Your task to perform on an android device: Open calendar and show me the first week of next month Image 0: 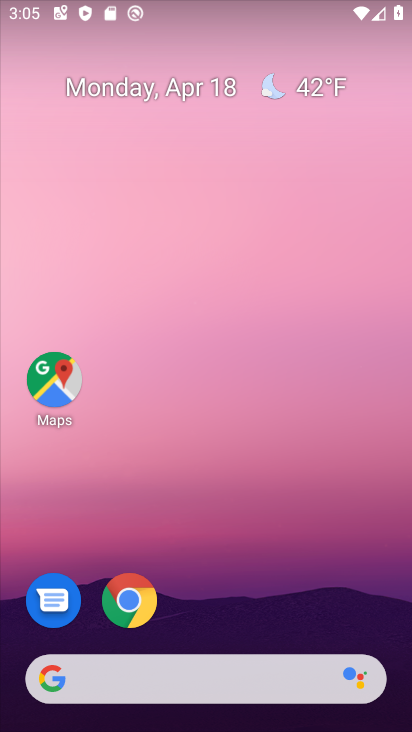
Step 0: drag from (166, 671) to (321, 55)
Your task to perform on an android device: Open calendar and show me the first week of next month Image 1: 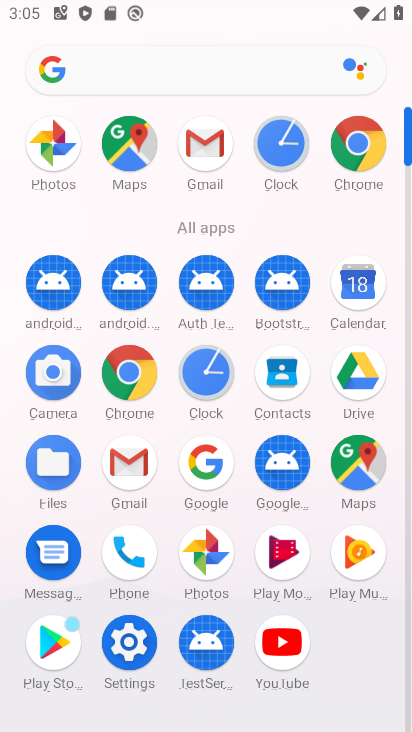
Step 1: click (362, 279)
Your task to perform on an android device: Open calendar and show me the first week of next month Image 2: 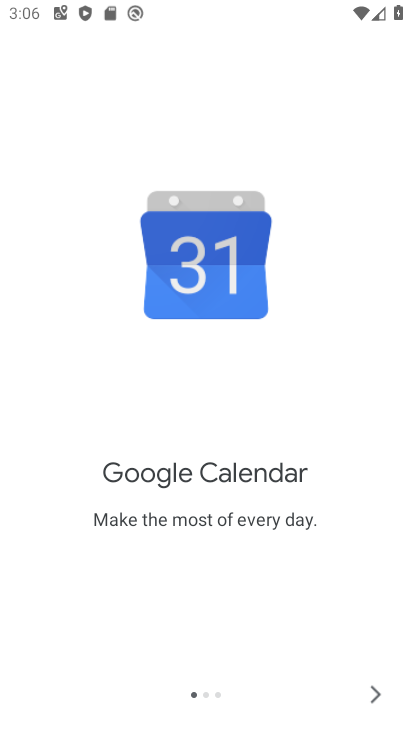
Step 2: click (372, 693)
Your task to perform on an android device: Open calendar and show me the first week of next month Image 3: 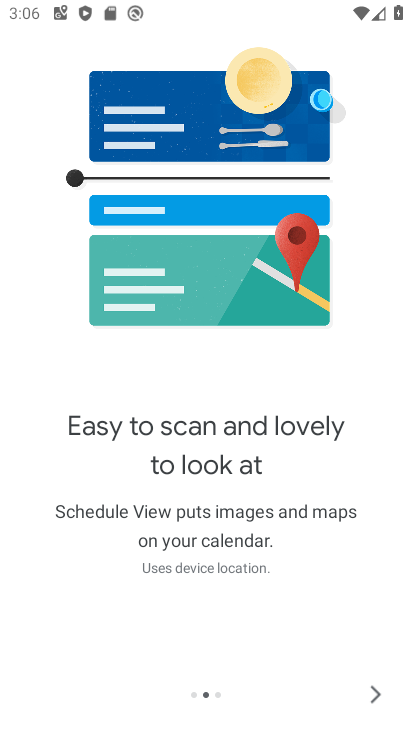
Step 3: click (381, 688)
Your task to perform on an android device: Open calendar and show me the first week of next month Image 4: 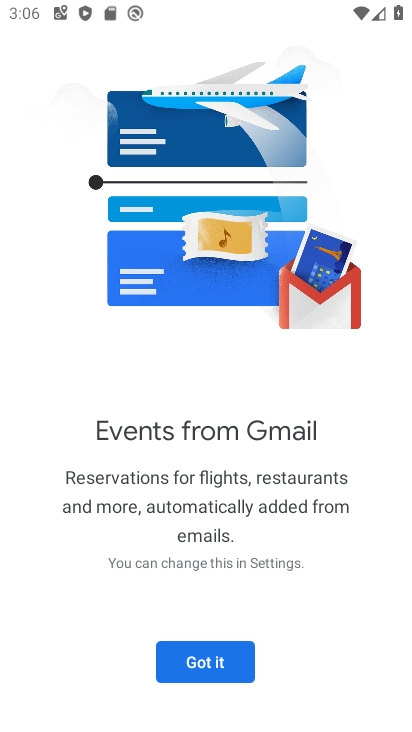
Step 4: click (233, 663)
Your task to perform on an android device: Open calendar and show me the first week of next month Image 5: 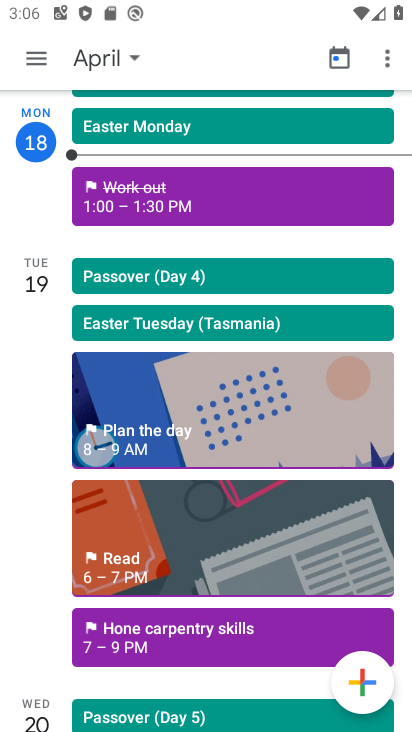
Step 5: click (93, 58)
Your task to perform on an android device: Open calendar and show me the first week of next month Image 6: 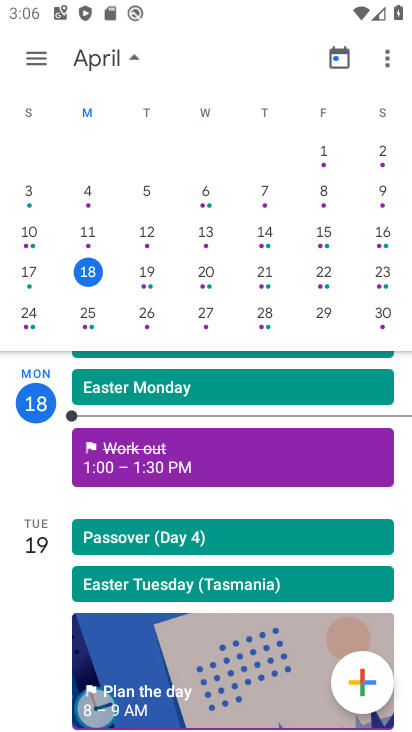
Step 6: drag from (244, 250) to (3, 198)
Your task to perform on an android device: Open calendar and show me the first week of next month Image 7: 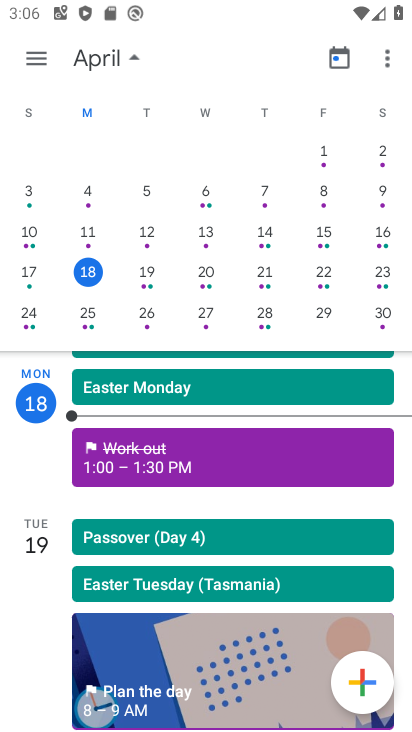
Step 7: click (15, 219)
Your task to perform on an android device: Open calendar and show me the first week of next month Image 8: 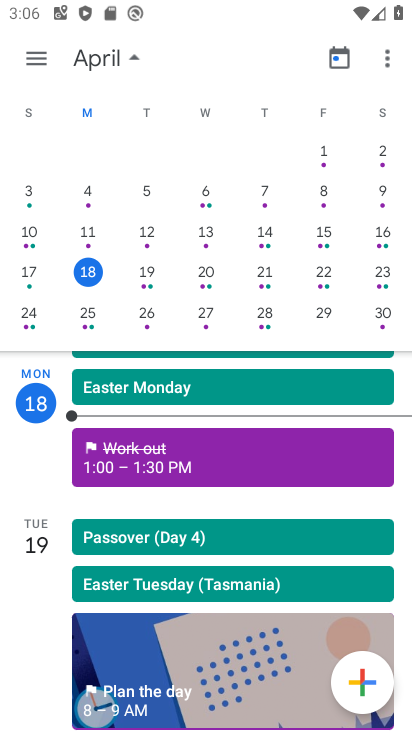
Step 8: drag from (373, 236) to (0, 200)
Your task to perform on an android device: Open calendar and show me the first week of next month Image 9: 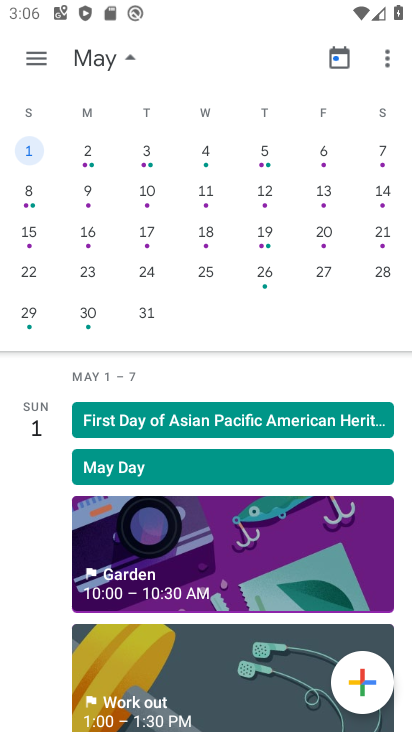
Step 9: click (27, 150)
Your task to perform on an android device: Open calendar and show me the first week of next month Image 10: 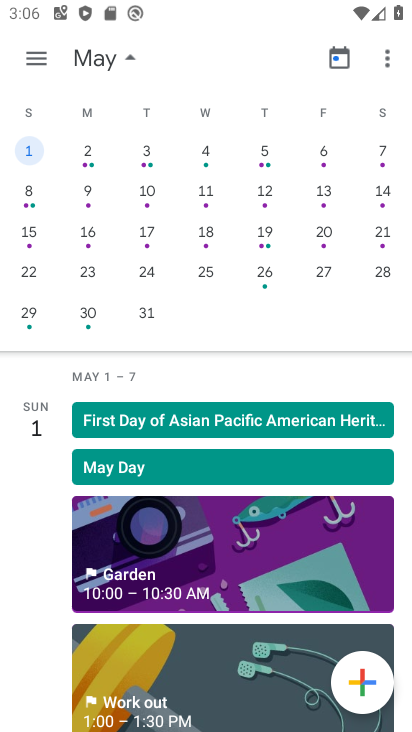
Step 10: click (40, 56)
Your task to perform on an android device: Open calendar and show me the first week of next month Image 11: 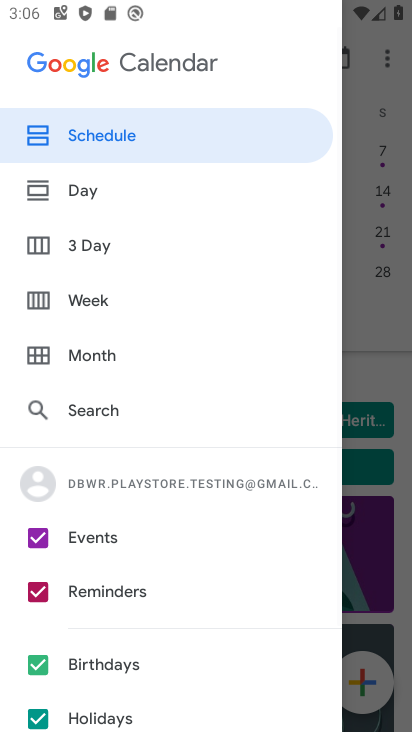
Step 11: click (101, 301)
Your task to perform on an android device: Open calendar and show me the first week of next month Image 12: 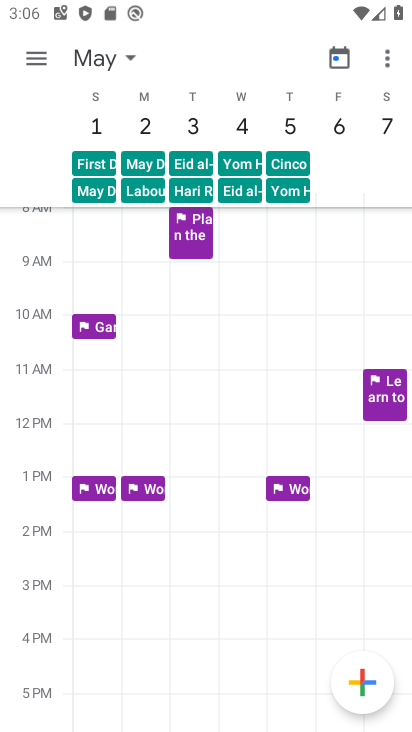
Step 12: task complete